Your task to perform on an android device: Open accessibility settings Image 0: 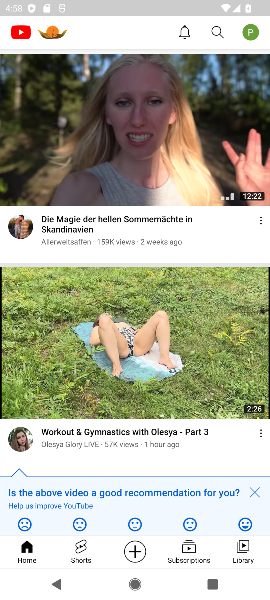
Step 0: press home button
Your task to perform on an android device: Open accessibility settings Image 1: 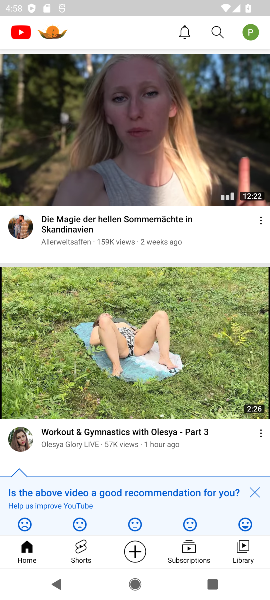
Step 1: press home button
Your task to perform on an android device: Open accessibility settings Image 2: 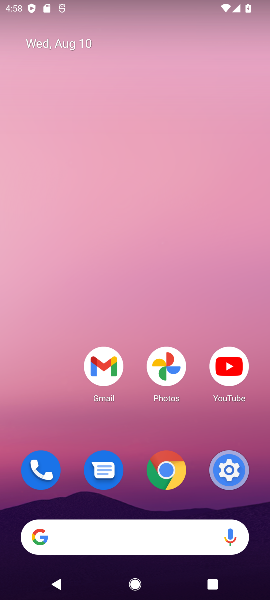
Step 2: click (224, 473)
Your task to perform on an android device: Open accessibility settings Image 3: 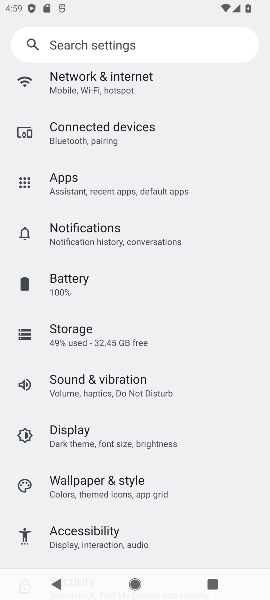
Step 3: click (91, 533)
Your task to perform on an android device: Open accessibility settings Image 4: 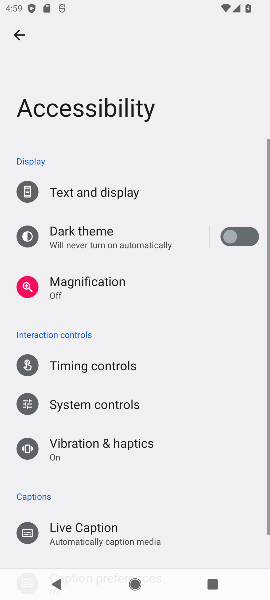
Step 4: task complete